Your task to perform on an android device: Check the news Image 0: 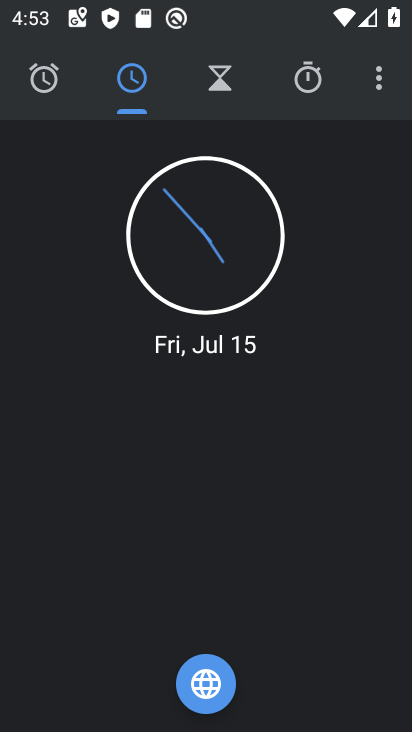
Step 0: press back button
Your task to perform on an android device: Check the news Image 1: 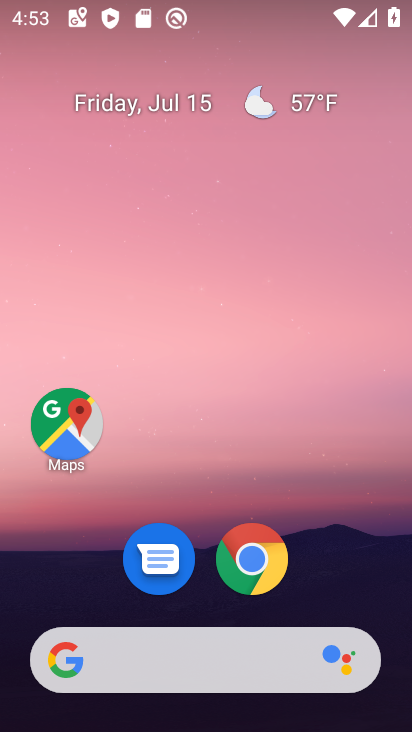
Step 1: click (202, 667)
Your task to perform on an android device: Check the news Image 2: 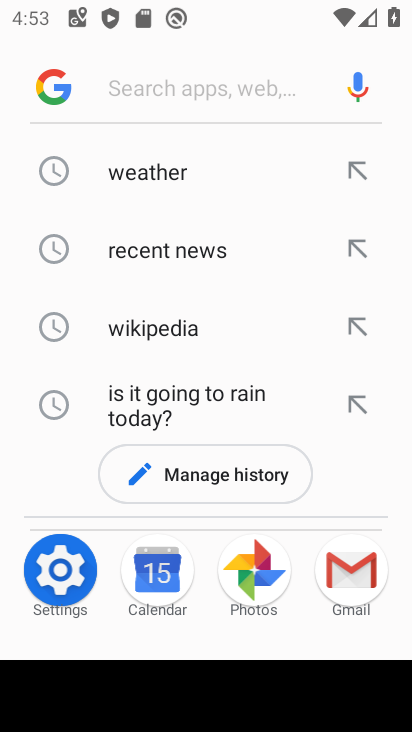
Step 2: click (134, 83)
Your task to perform on an android device: Check the news Image 3: 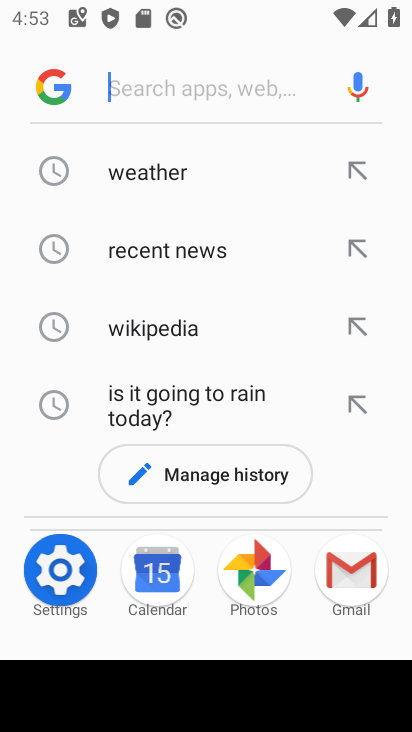
Step 3: type "news"
Your task to perform on an android device: Check the news Image 4: 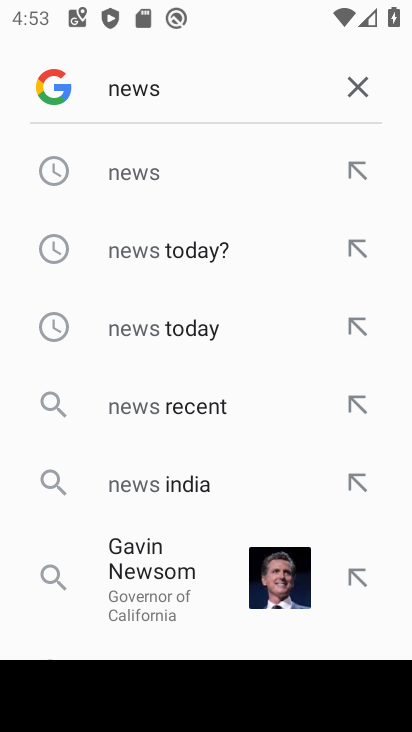
Step 4: click (137, 173)
Your task to perform on an android device: Check the news Image 5: 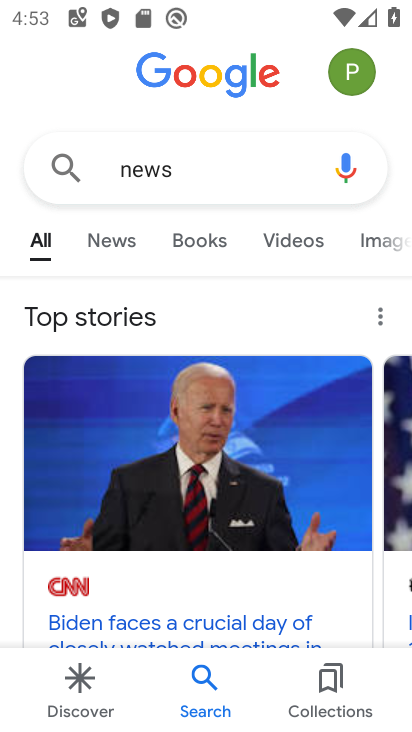
Step 5: task complete